Your task to perform on an android device: Go to Maps Image 0: 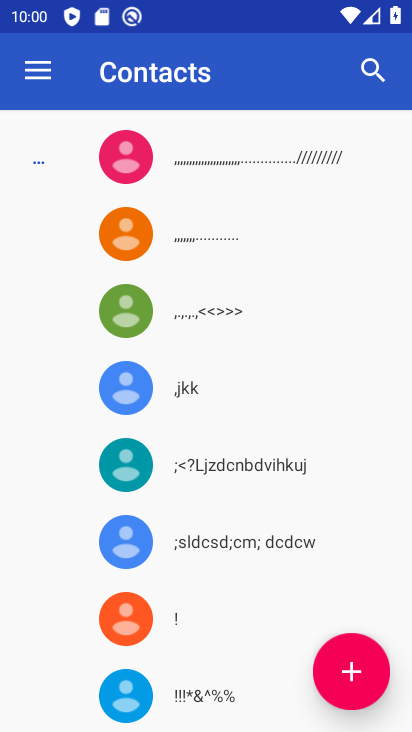
Step 0: press home button
Your task to perform on an android device: Go to Maps Image 1: 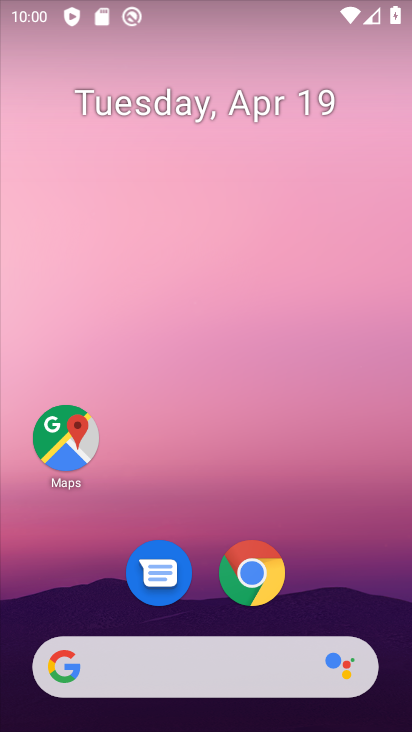
Step 1: drag from (363, 595) to (363, 77)
Your task to perform on an android device: Go to Maps Image 2: 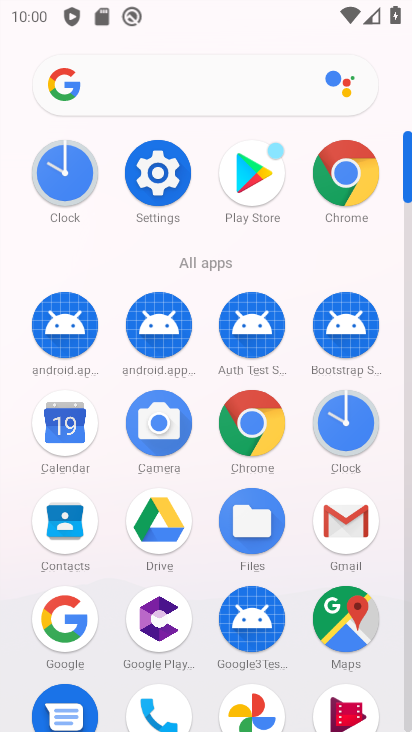
Step 2: click (343, 625)
Your task to perform on an android device: Go to Maps Image 3: 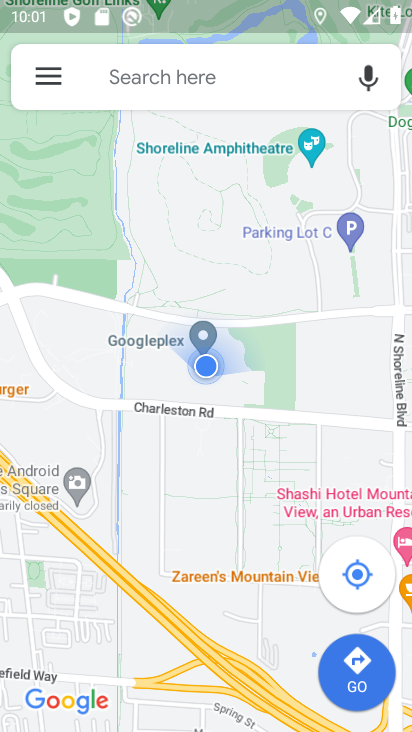
Step 3: task complete